Your task to perform on an android device: refresh tabs in the chrome app Image 0: 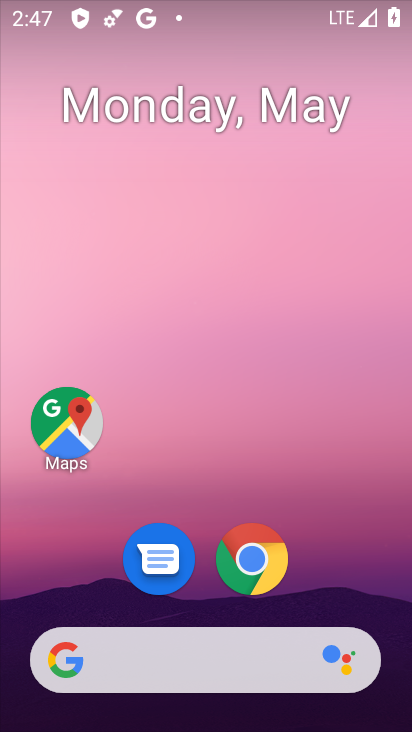
Step 0: click (253, 558)
Your task to perform on an android device: refresh tabs in the chrome app Image 1: 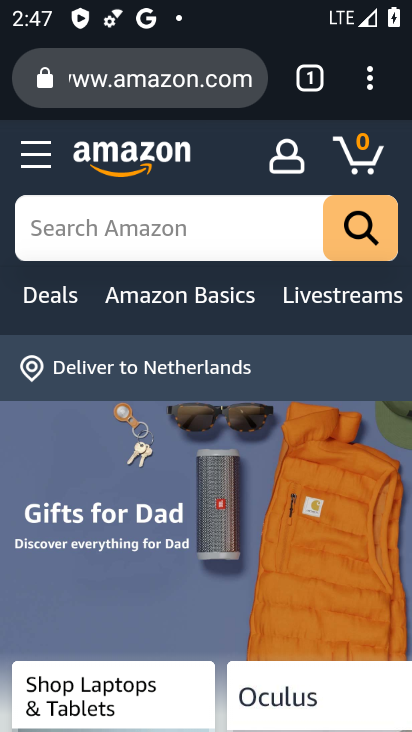
Step 1: click (376, 68)
Your task to perform on an android device: refresh tabs in the chrome app Image 2: 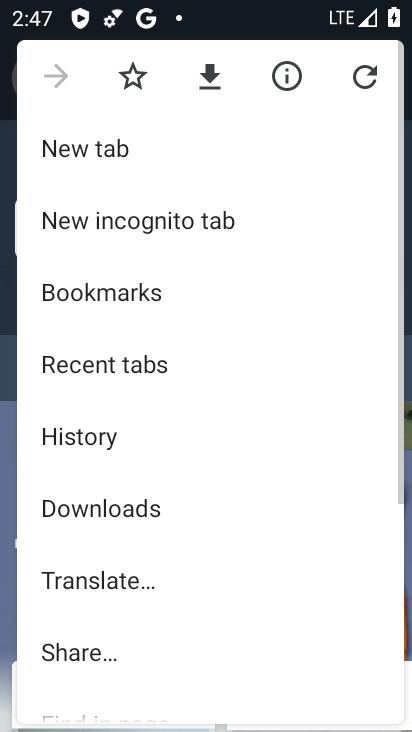
Step 2: click (364, 79)
Your task to perform on an android device: refresh tabs in the chrome app Image 3: 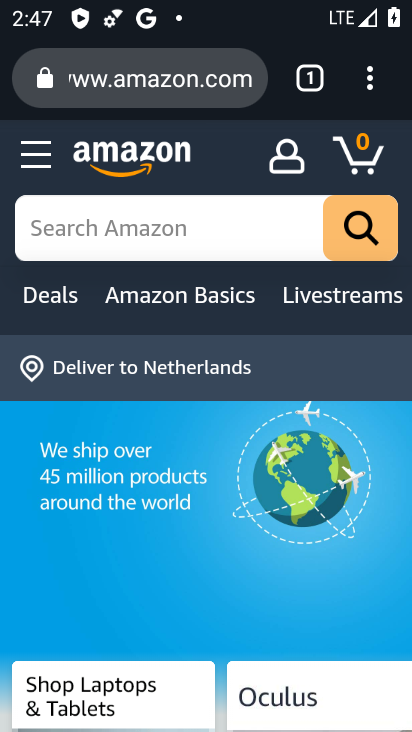
Step 3: task complete